Your task to perform on an android device: Go to eBay Image 0: 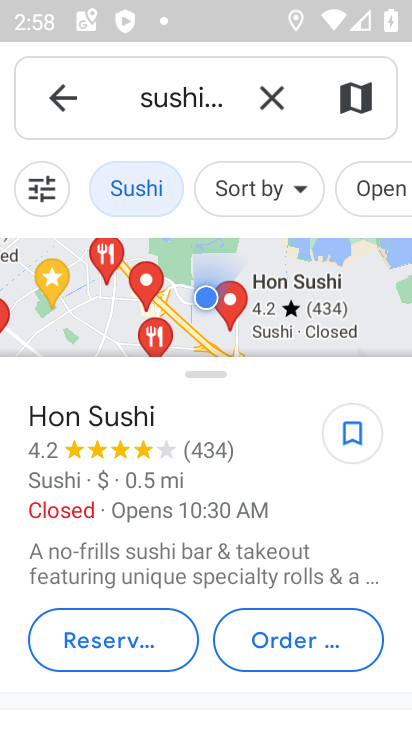
Step 0: press back button
Your task to perform on an android device: Go to eBay Image 1: 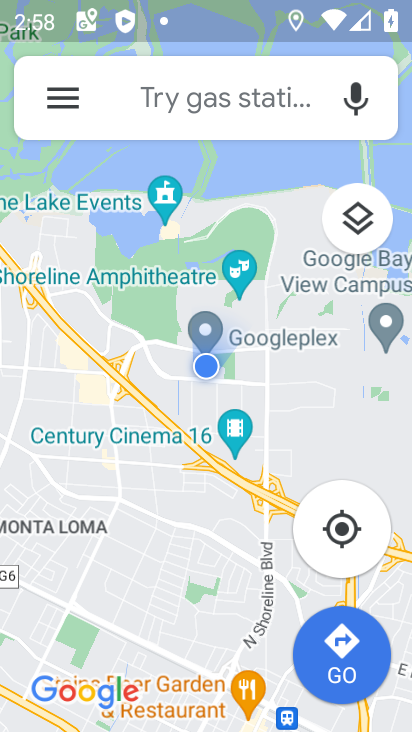
Step 1: press home button
Your task to perform on an android device: Go to eBay Image 2: 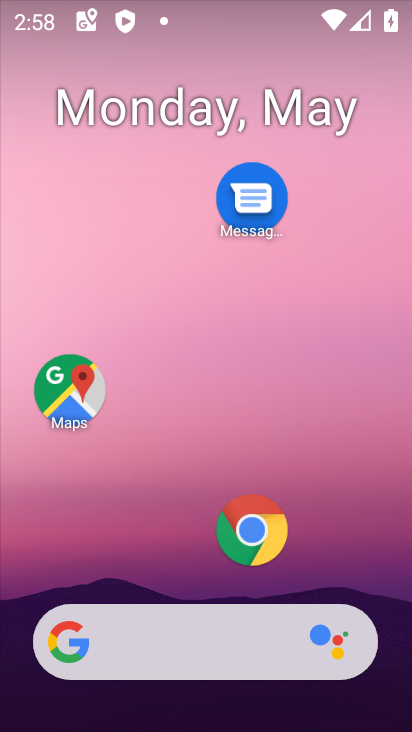
Step 2: click (249, 550)
Your task to perform on an android device: Go to eBay Image 3: 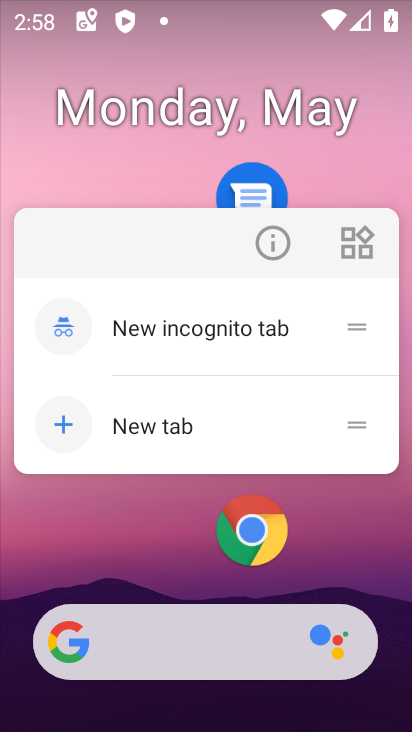
Step 3: click (250, 539)
Your task to perform on an android device: Go to eBay Image 4: 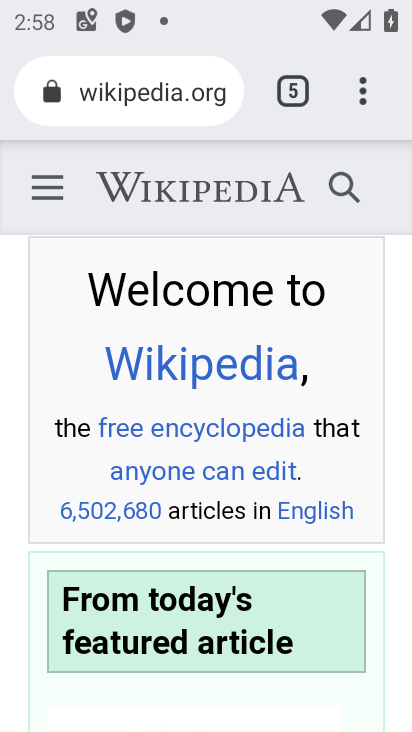
Step 4: click (304, 91)
Your task to perform on an android device: Go to eBay Image 5: 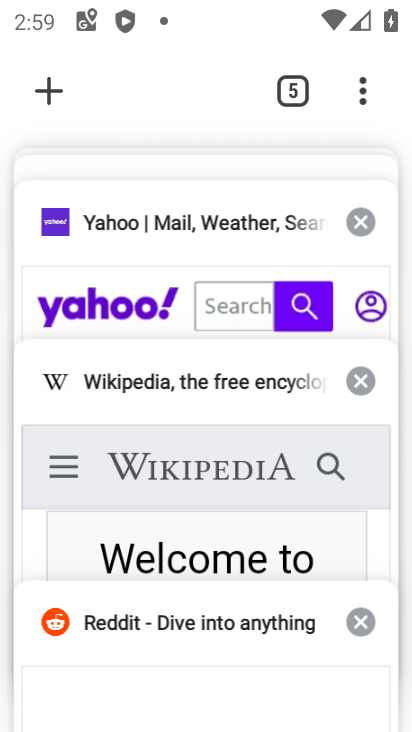
Step 5: drag from (229, 201) to (174, 638)
Your task to perform on an android device: Go to eBay Image 6: 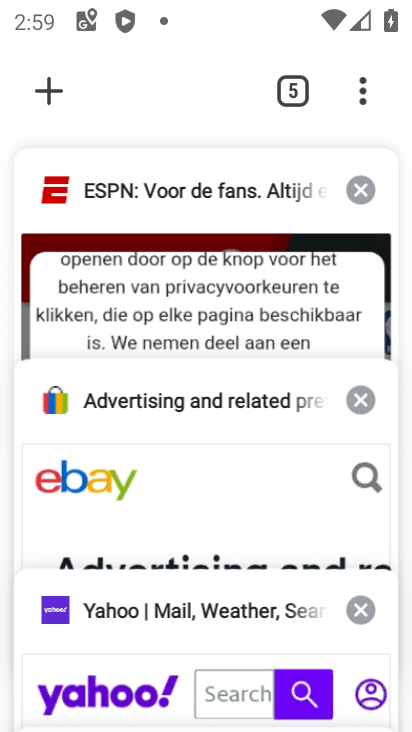
Step 6: click (111, 496)
Your task to perform on an android device: Go to eBay Image 7: 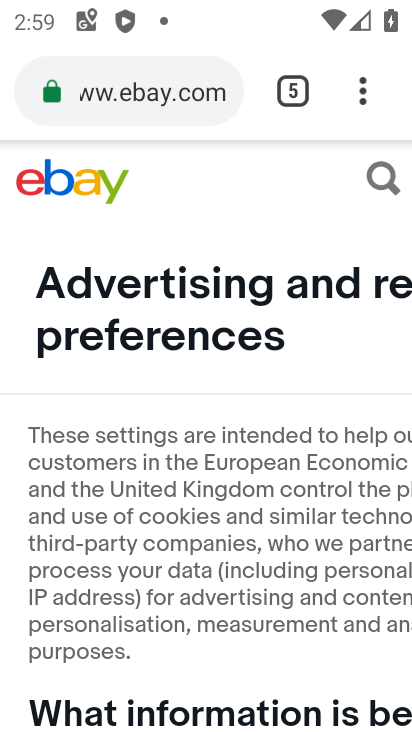
Step 7: task complete